Your task to perform on an android device: Go to Wikipedia Image 0: 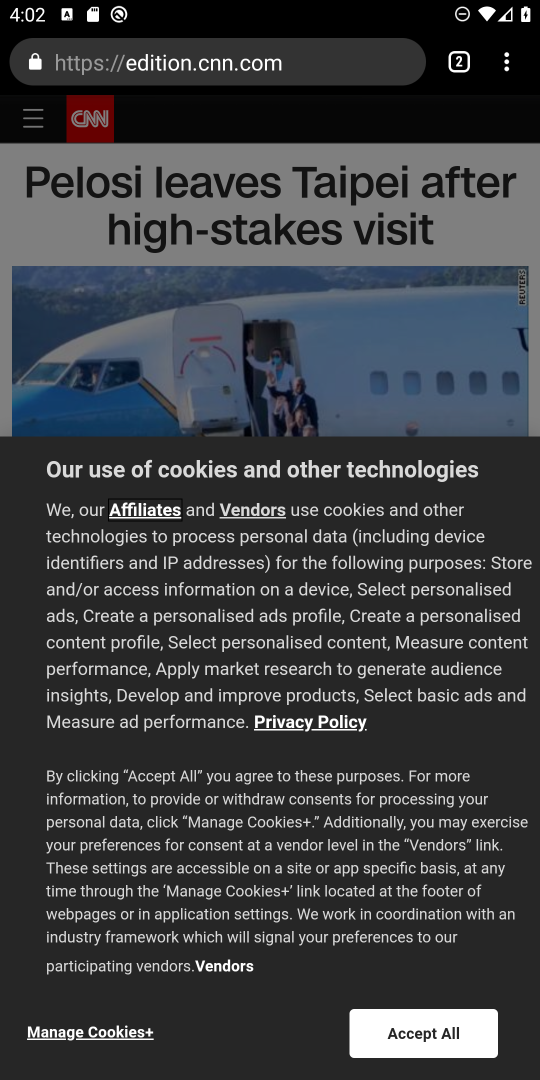
Step 0: press home button
Your task to perform on an android device: Go to Wikipedia Image 1: 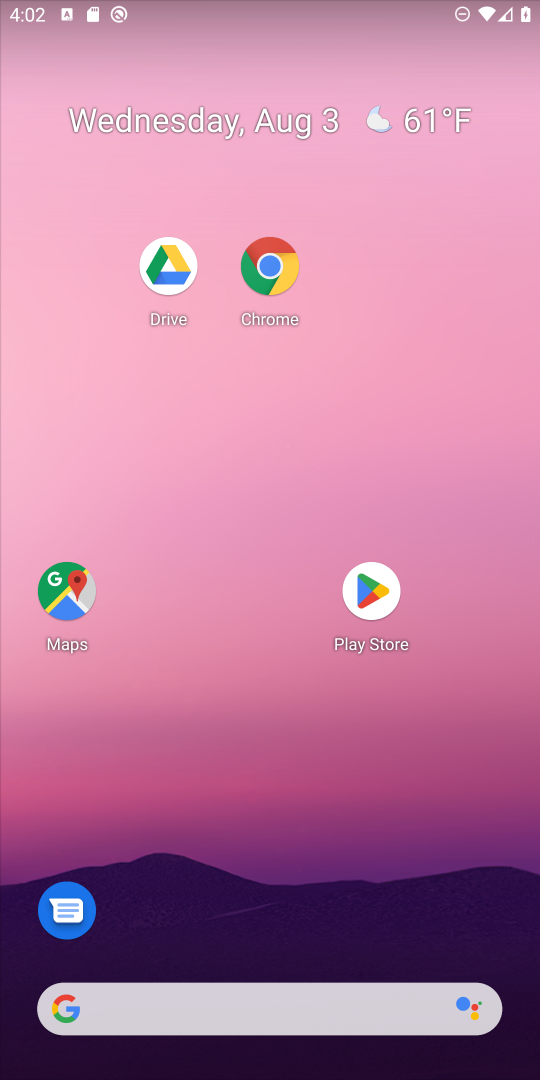
Step 1: drag from (429, 580) to (521, 619)
Your task to perform on an android device: Go to Wikipedia Image 2: 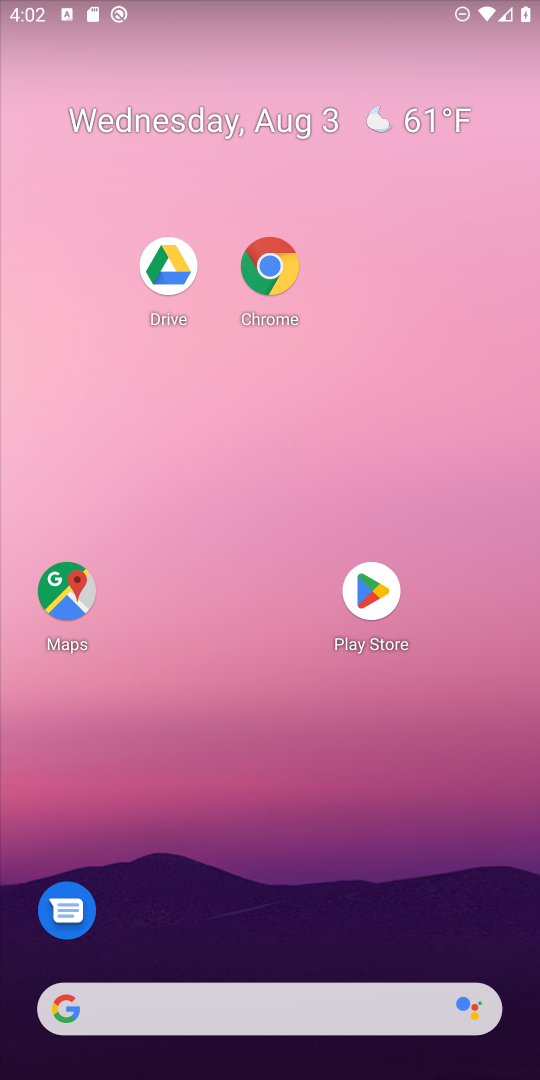
Step 2: drag from (287, 980) to (353, 3)
Your task to perform on an android device: Go to Wikipedia Image 3: 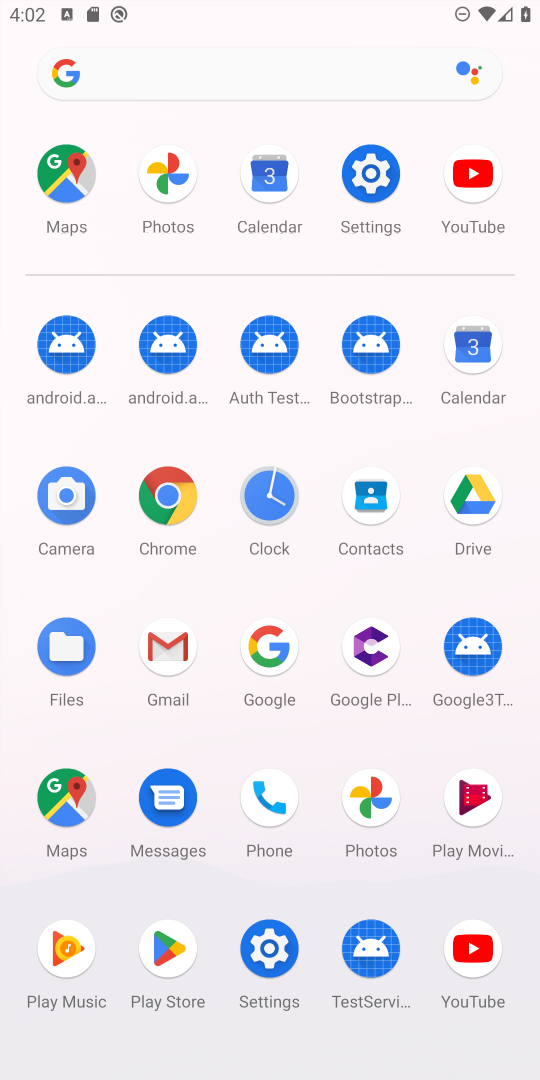
Step 3: click (151, 489)
Your task to perform on an android device: Go to Wikipedia Image 4: 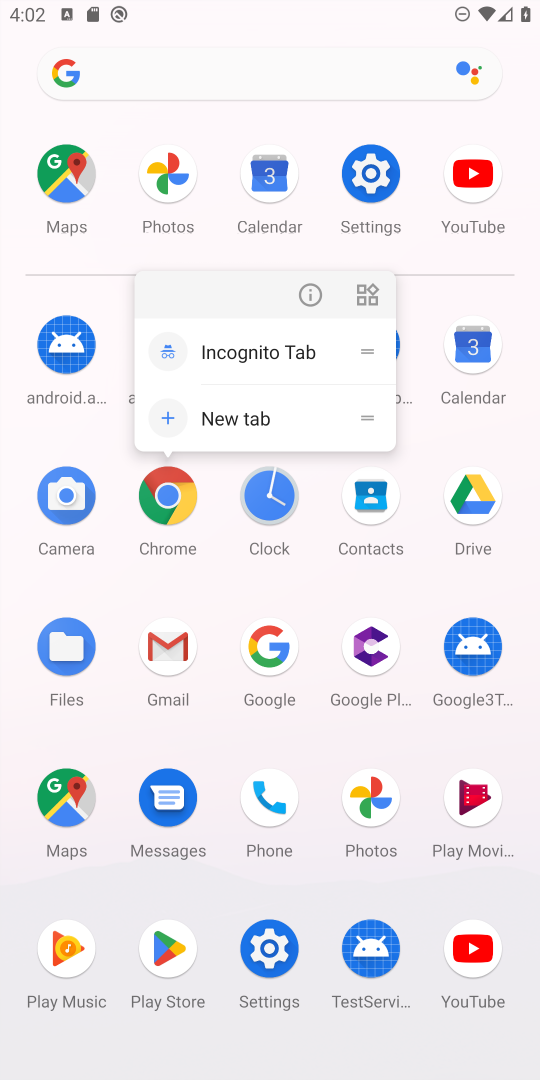
Step 4: click (172, 504)
Your task to perform on an android device: Go to Wikipedia Image 5: 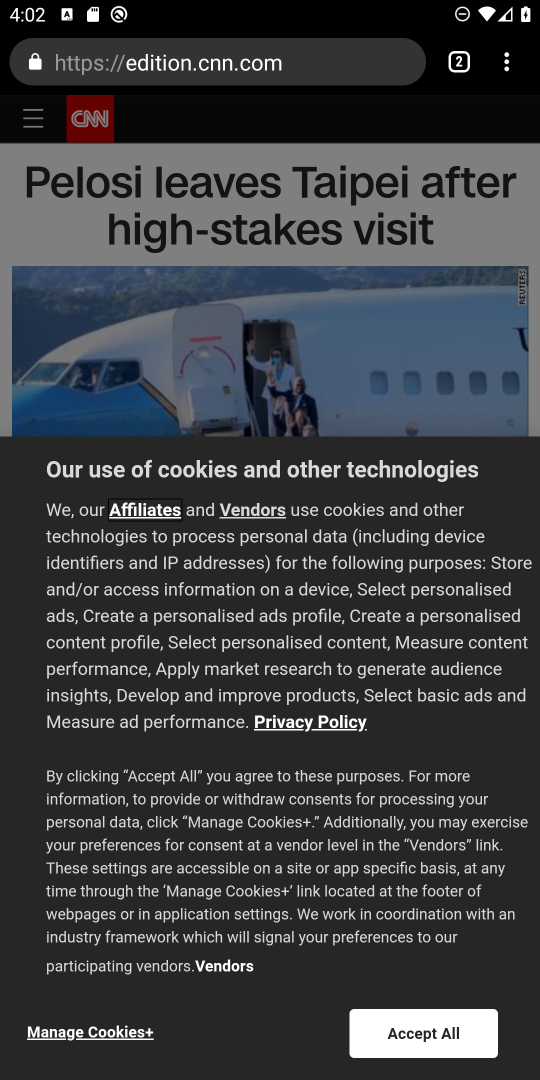
Step 5: click (277, 65)
Your task to perform on an android device: Go to Wikipedia Image 6: 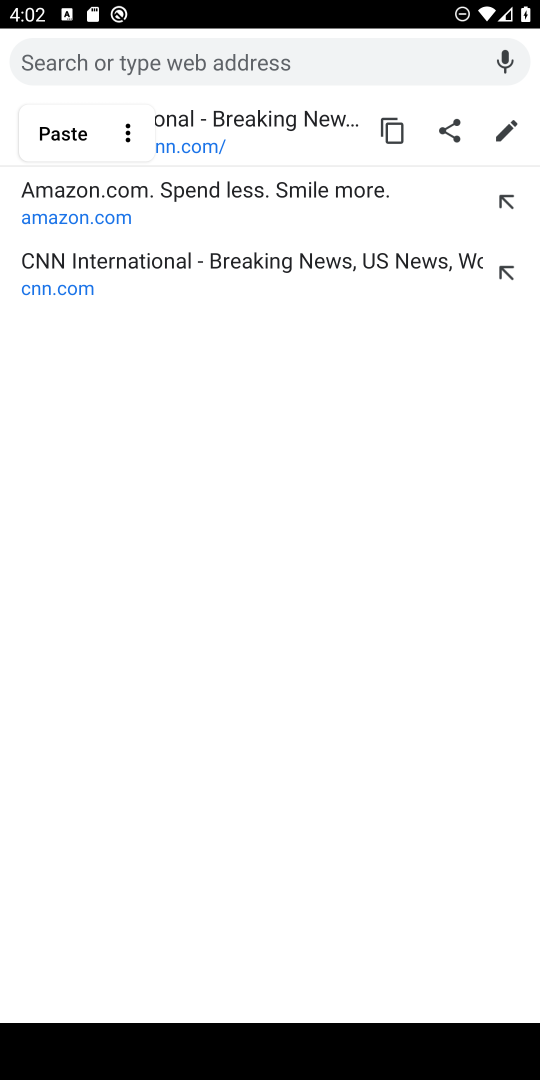
Step 6: type "wikipedia"
Your task to perform on an android device: Go to Wikipedia Image 7: 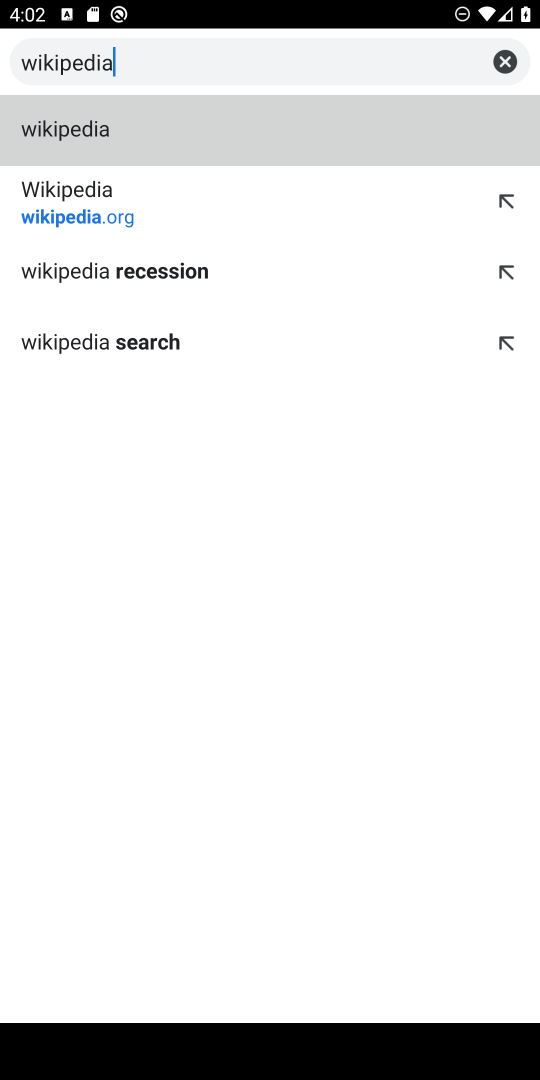
Step 7: click (93, 202)
Your task to perform on an android device: Go to Wikipedia Image 8: 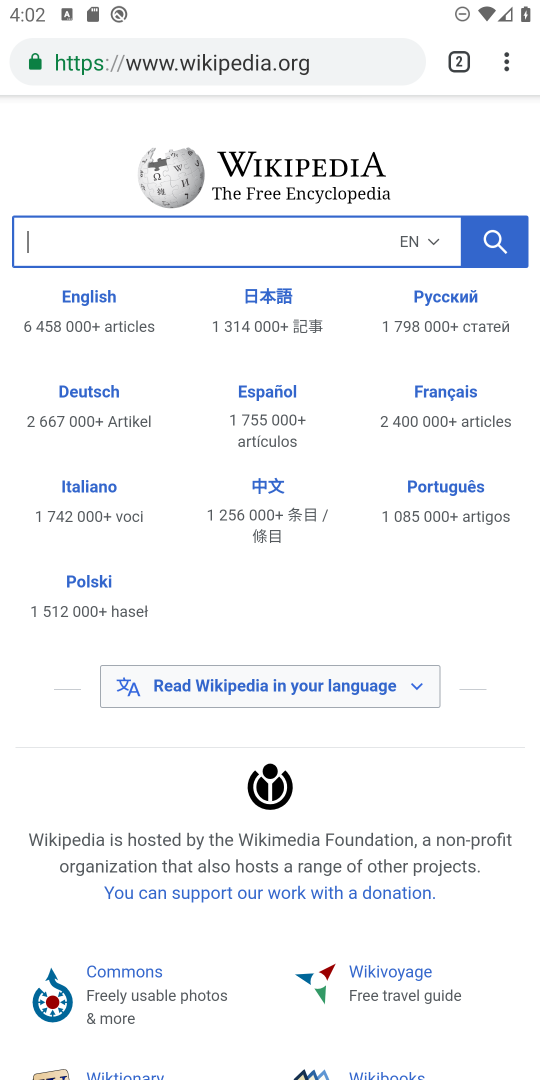
Step 8: task complete